Your task to perform on an android device: turn pop-ups off in chrome Image 0: 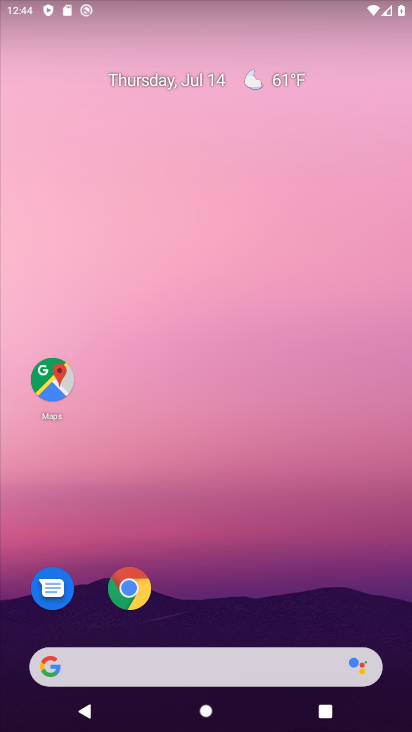
Step 0: drag from (265, 615) to (263, 358)
Your task to perform on an android device: turn pop-ups off in chrome Image 1: 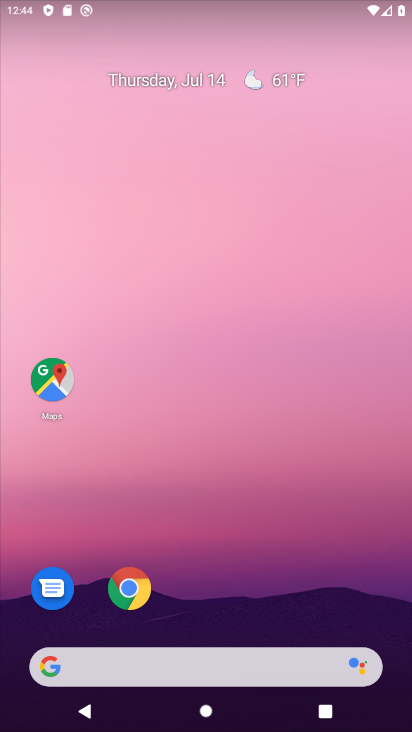
Step 1: click (133, 584)
Your task to perform on an android device: turn pop-ups off in chrome Image 2: 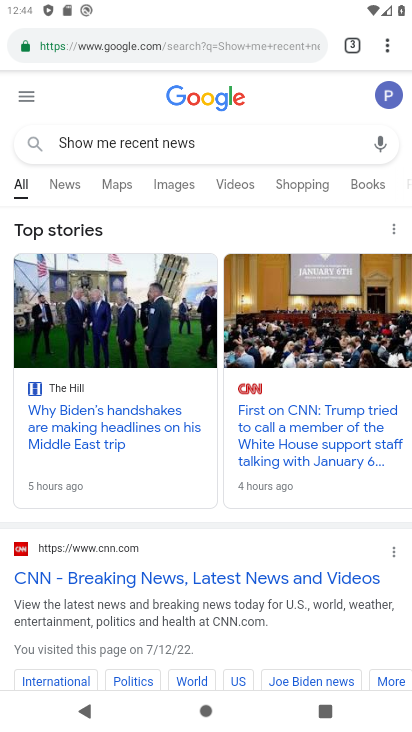
Step 2: click (398, 44)
Your task to perform on an android device: turn pop-ups off in chrome Image 3: 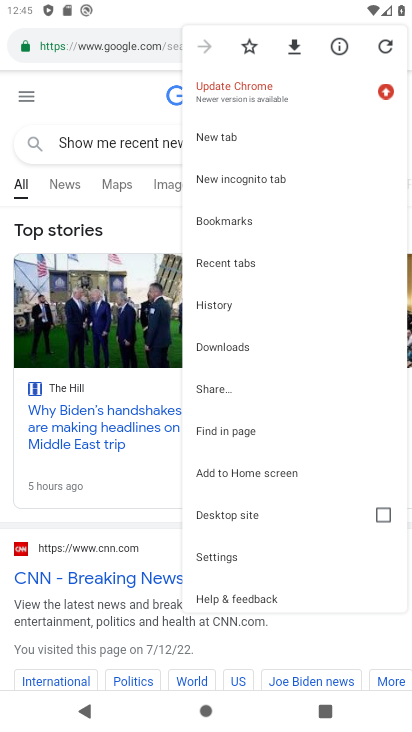
Step 3: click (217, 554)
Your task to perform on an android device: turn pop-ups off in chrome Image 4: 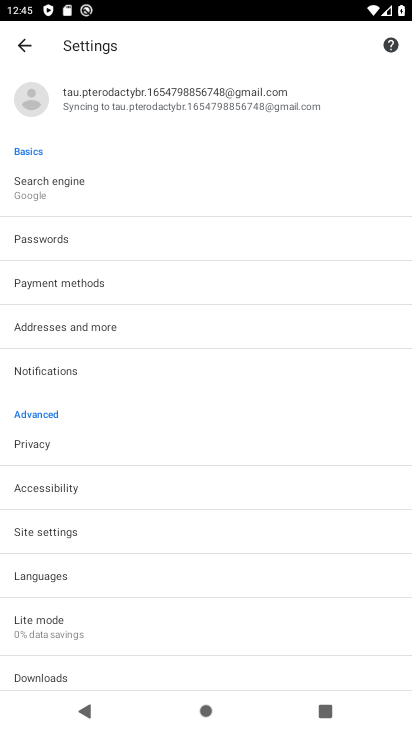
Step 4: click (82, 519)
Your task to perform on an android device: turn pop-ups off in chrome Image 5: 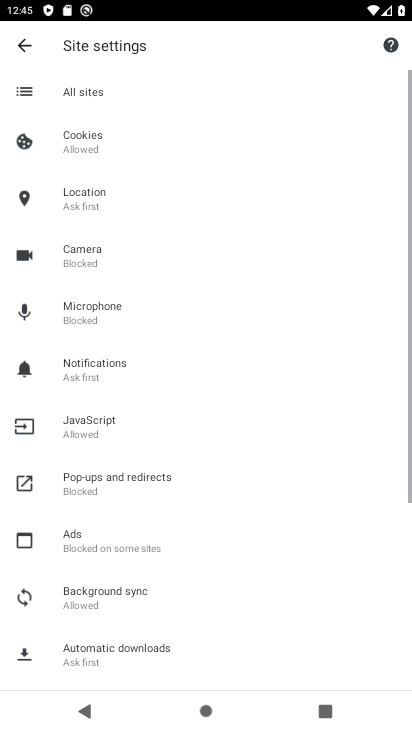
Step 5: click (171, 487)
Your task to perform on an android device: turn pop-ups off in chrome Image 6: 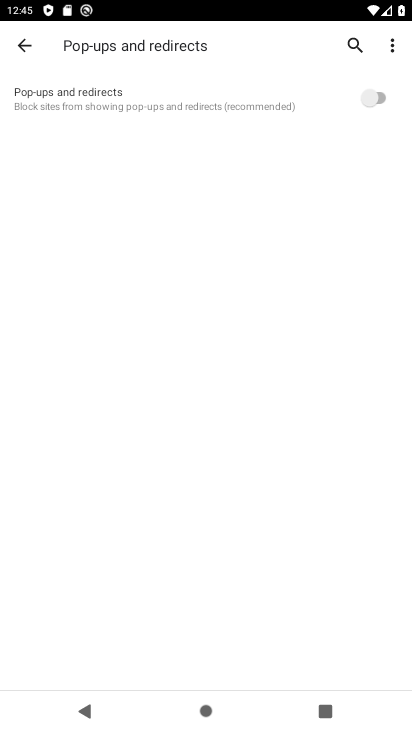
Step 6: task complete